Your task to perform on an android device: Go to notification settings Image 0: 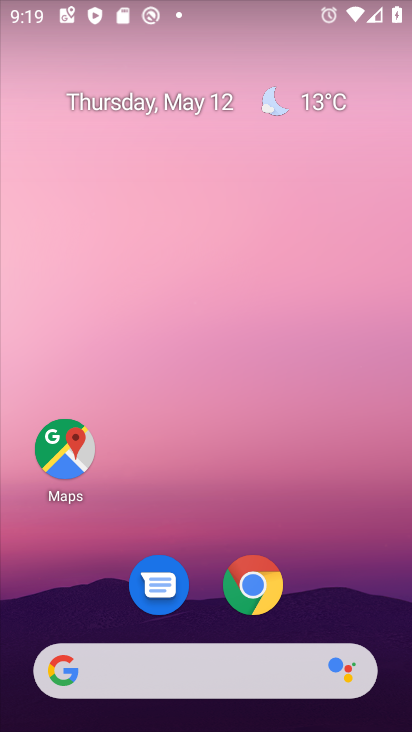
Step 0: drag from (235, 489) to (231, 104)
Your task to perform on an android device: Go to notification settings Image 1: 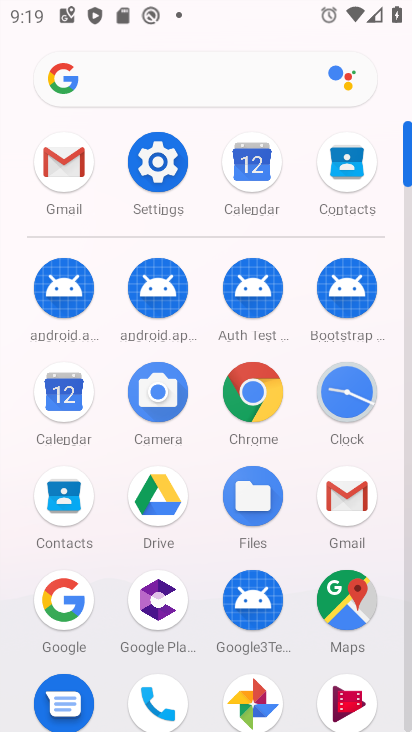
Step 1: click (157, 166)
Your task to perform on an android device: Go to notification settings Image 2: 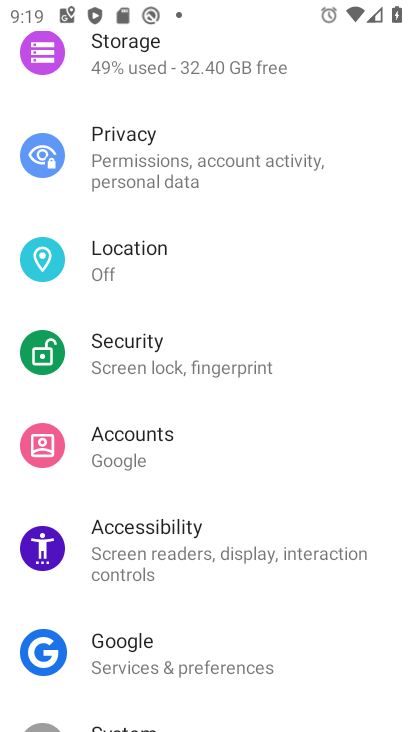
Step 2: drag from (226, 216) to (239, 630)
Your task to perform on an android device: Go to notification settings Image 3: 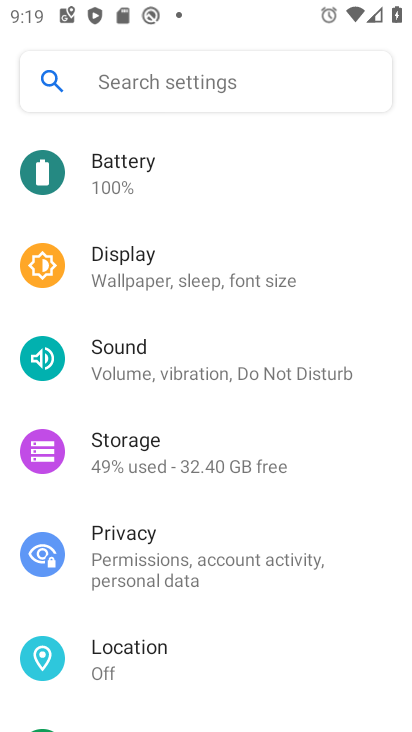
Step 3: drag from (213, 238) to (233, 605)
Your task to perform on an android device: Go to notification settings Image 4: 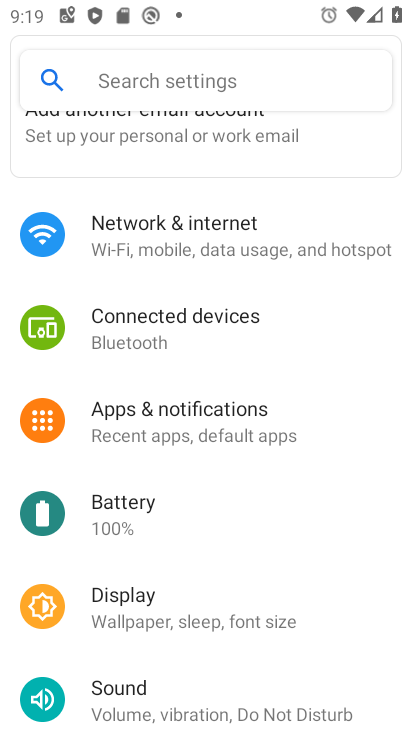
Step 4: click (206, 418)
Your task to perform on an android device: Go to notification settings Image 5: 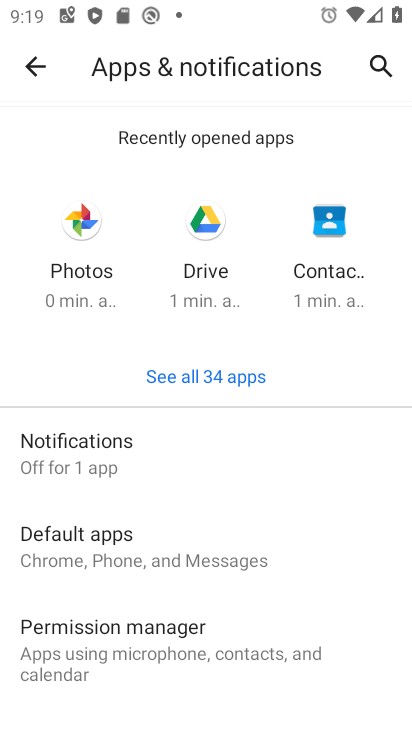
Step 5: click (184, 449)
Your task to perform on an android device: Go to notification settings Image 6: 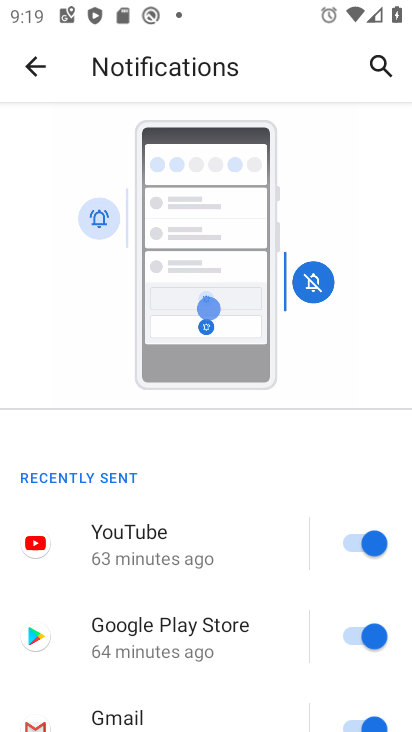
Step 6: task complete